Your task to perform on an android device: Go to eBay Image 0: 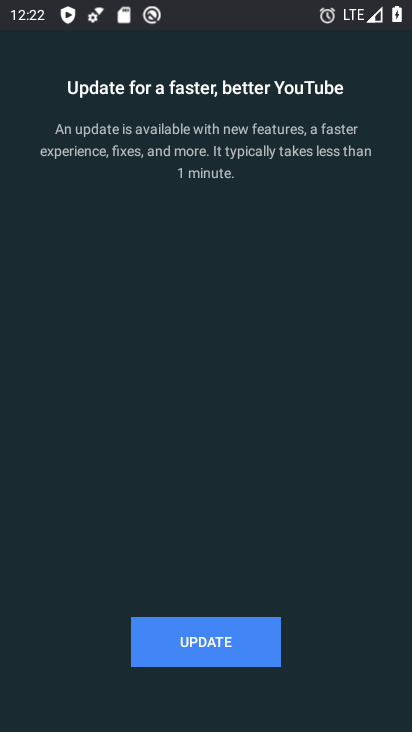
Step 0: press home button
Your task to perform on an android device: Go to eBay Image 1: 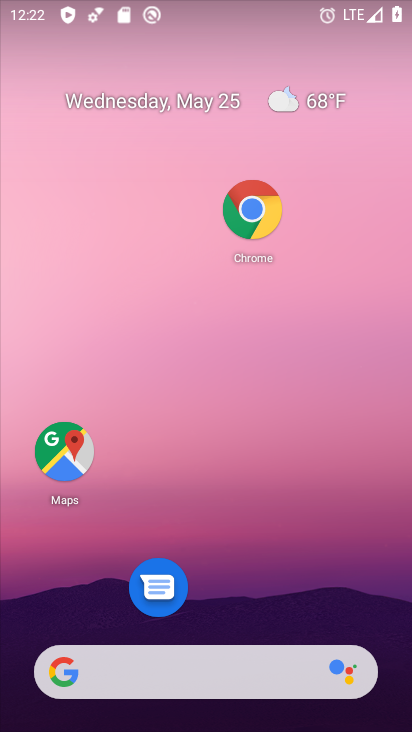
Step 1: click (247, 204)
Your task to perform on an android device: Go to eBay Image 2: 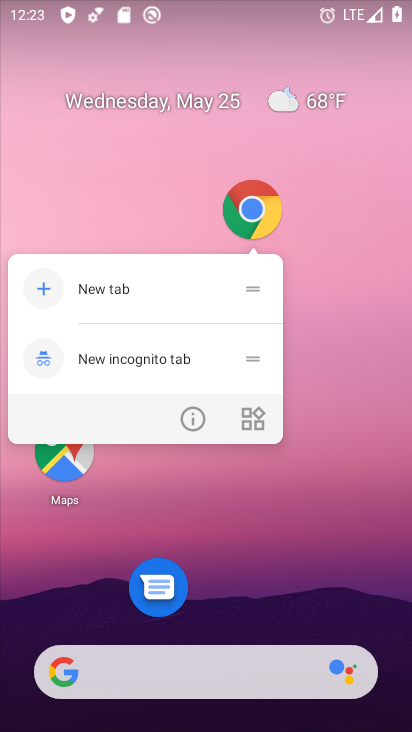
Step 2: click (248, 201)
Your task to perform on an android device: Go to eBay Image 3: 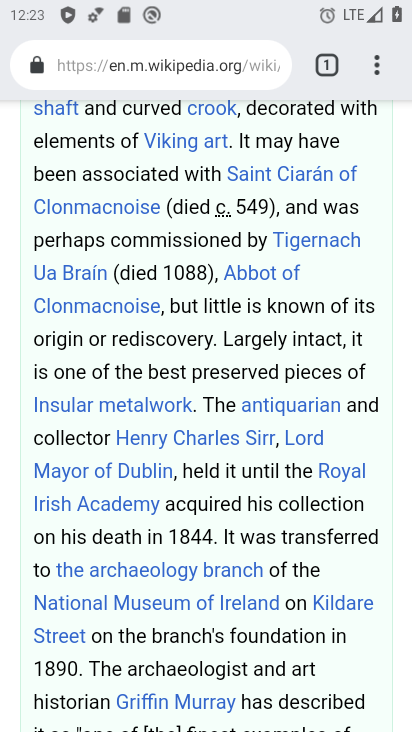
Step 3: click (380, 58)
Your task to perform on an android device: Go to eBay Image 4: 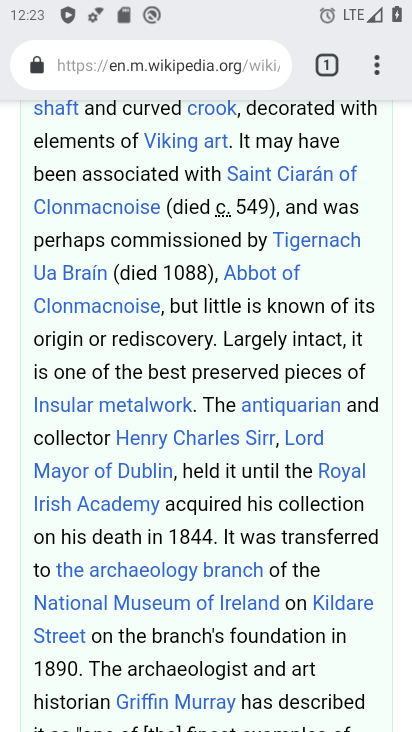
Step 4: click (325, 60)
Your task to perform on an android device: Go to eBay Image 5: 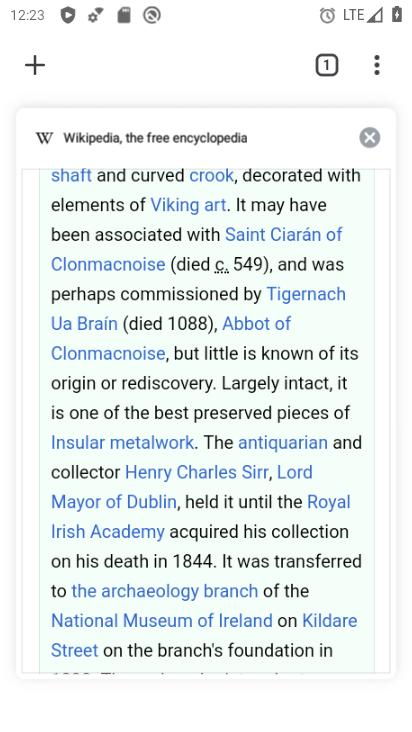
Step 5: click (371, 137)
Your task to perform on an android device: Go to eBay Image 6: 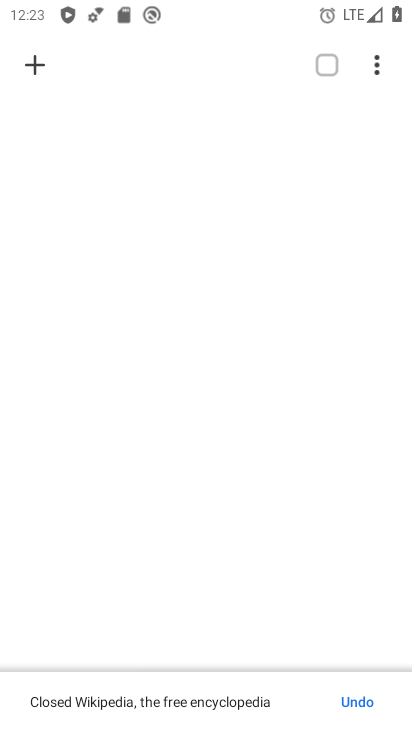
Step 6: click (40, 66)
Your task to perform on an android device: Go to eBay Image 7: 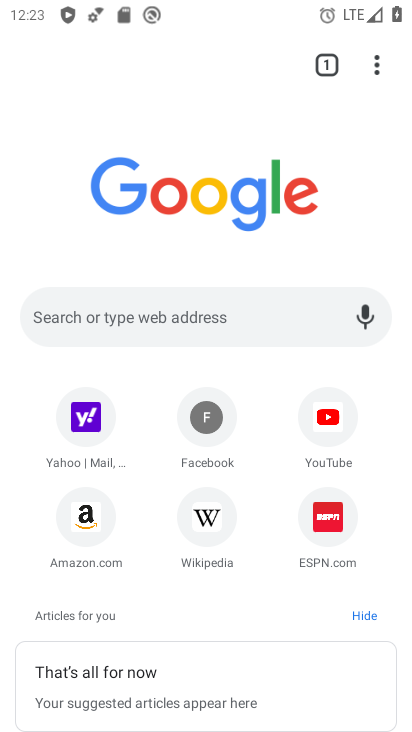
Step 7: click (186, 316)
Your task to perform on an android device: Go to eBay Image 8: 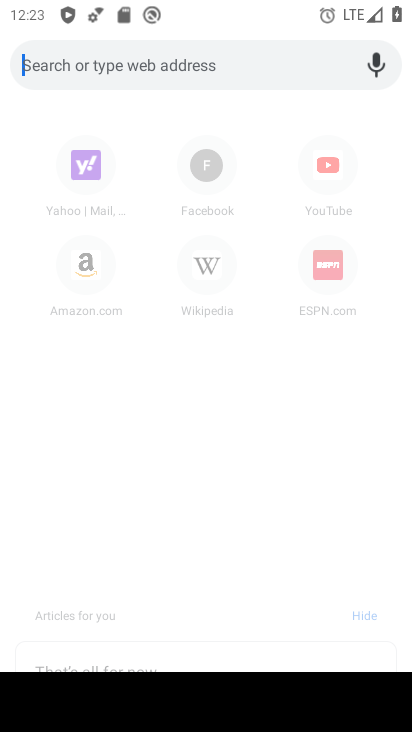
Step 8: type "ebay"
Your task to perform on an android device: Go to eBay Image 9: 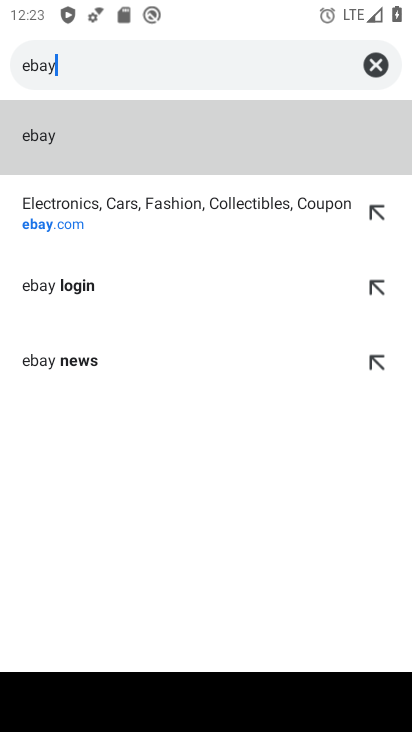
Step 9: click (115, 211)
Your task to perform on an android device: Go to eBay Image 10: 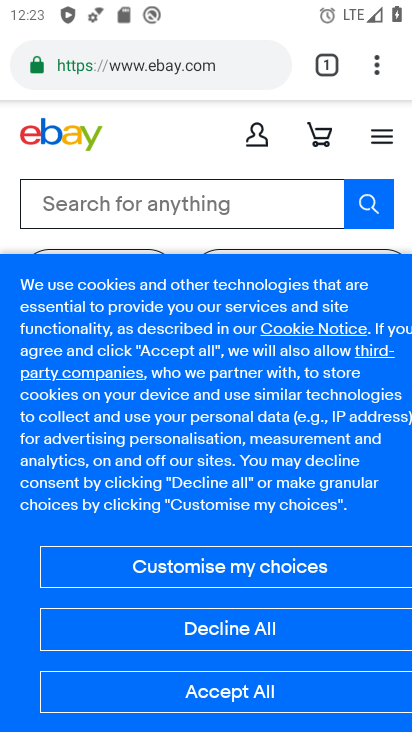
Step 10: click (231, 685)
Your task to perform on an android device: Go to eBay Image 11: 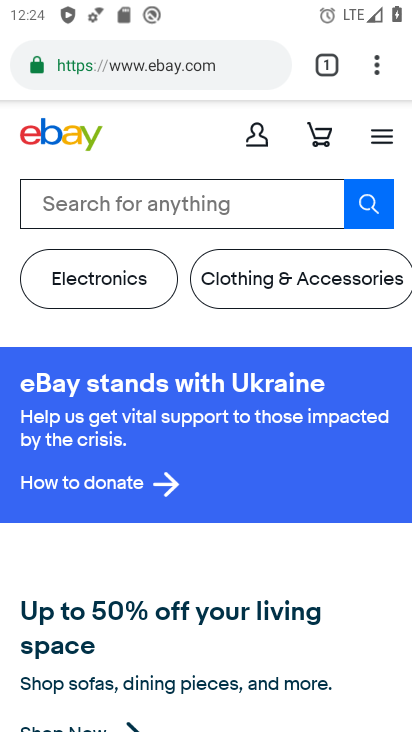
Step 11: task complete